Your task to perform on an android device: change the clock display to digital Image 0: 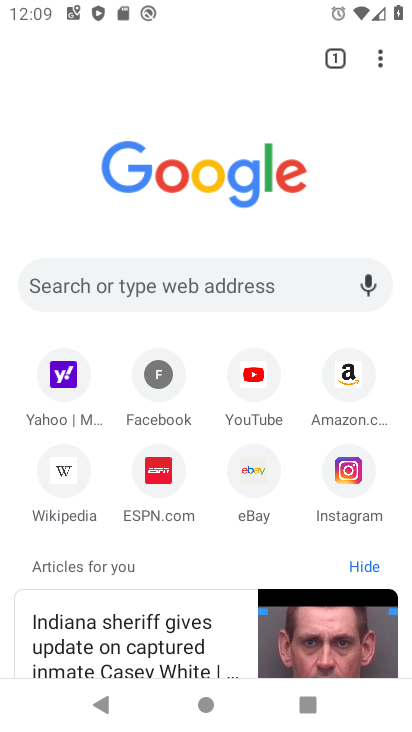
Step 0: drag from (206, 546) to (234, 282)
Your task to perform on an android device: change the clock display to digital Image 1: 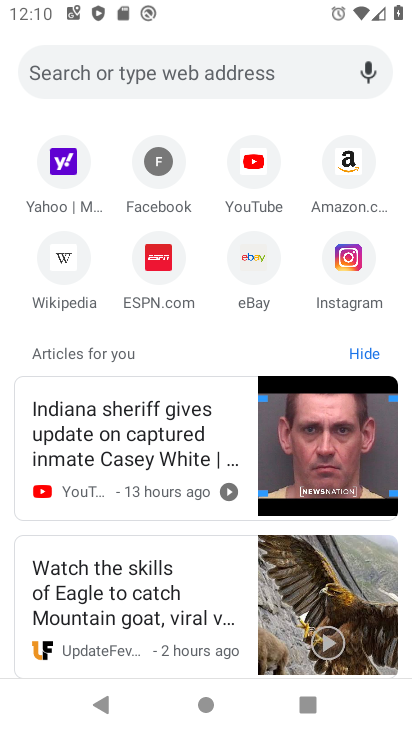
Step 1: drag from (202, 135) to (216, 411)
Your task to perform on an android device: change the clock display to digital Image 2: 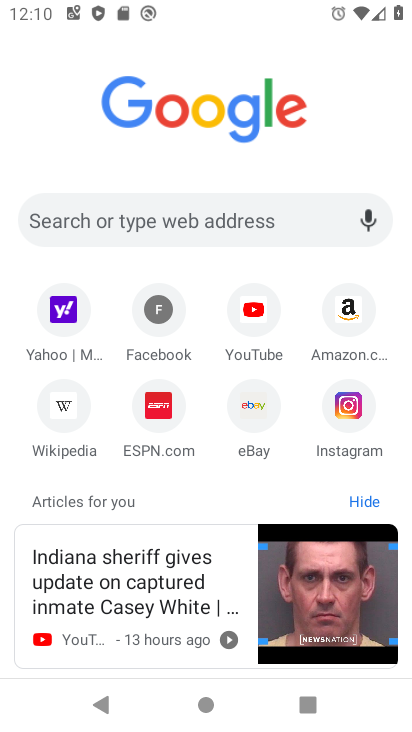
Step 2: drag from (176, 272) to (211, 508)
Your task to perform on an android device: change the clock display to digital Image 3: 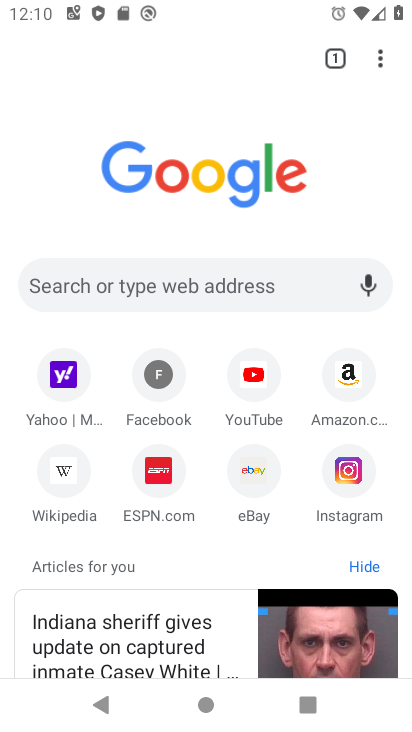
Step 3: drag from (205, 547) to (215, 227)
Your task to perform on an android device: change the clock display to digital Image 4: 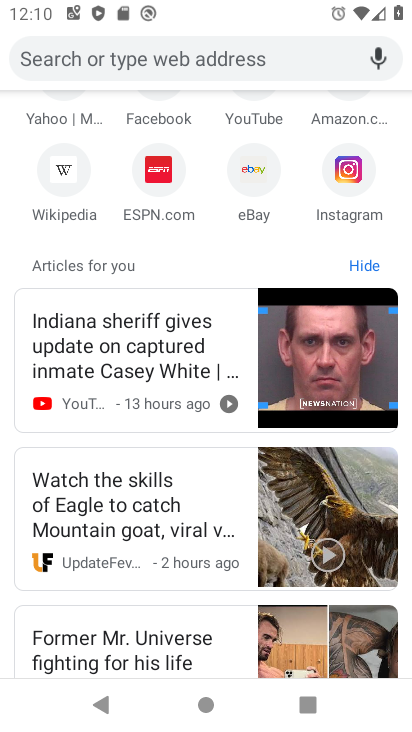
Step 4: drag from (307, 153) to (404, 487)
Your task to perform on an android device: change the clock display to digital Image 5: 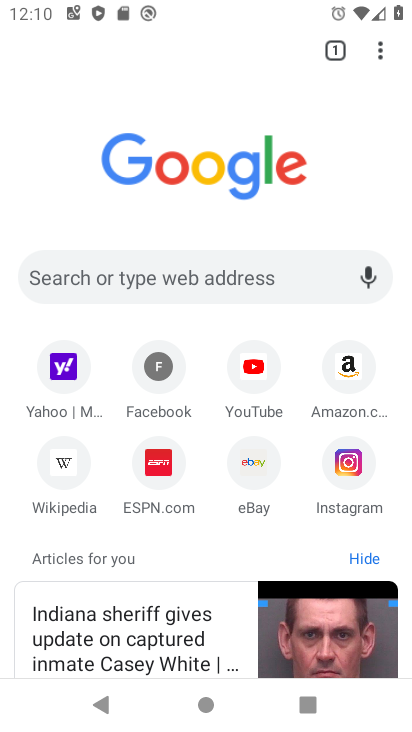
Step 5: press home button
Your task to perform on an android device: change the clock display to digital Image 6: 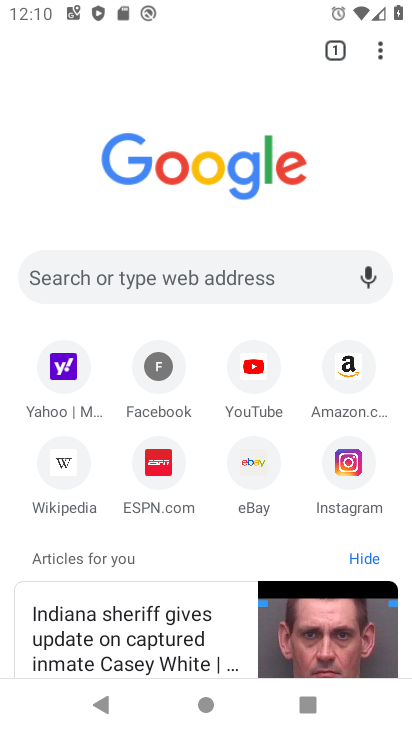
Step 6: click (411, 373)
Your task to perform on an android device: change the clock display to digital Image 7: 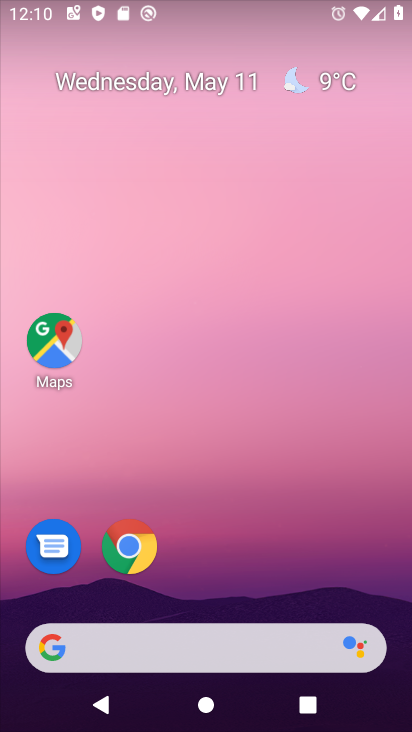
Step 7: drag from (185, 588) to (217, 258)
Your task to perform on an android device: change the clock display to digital Image 8: 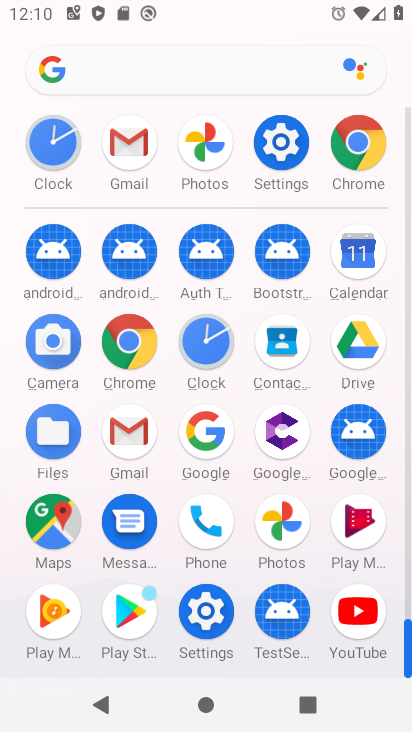
Step 8: click (199, 338)
Your task to perform on an android device: change the clock display to digital Image 9: 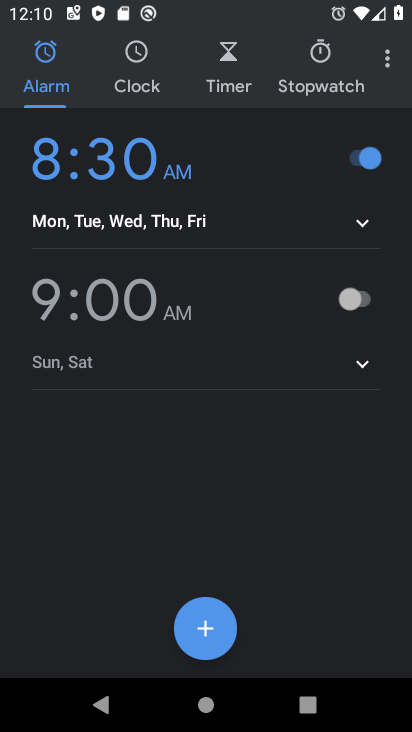
Step 9: click (388, 57)
Your task to perform on an android device: change the clock display to digital Image 10: 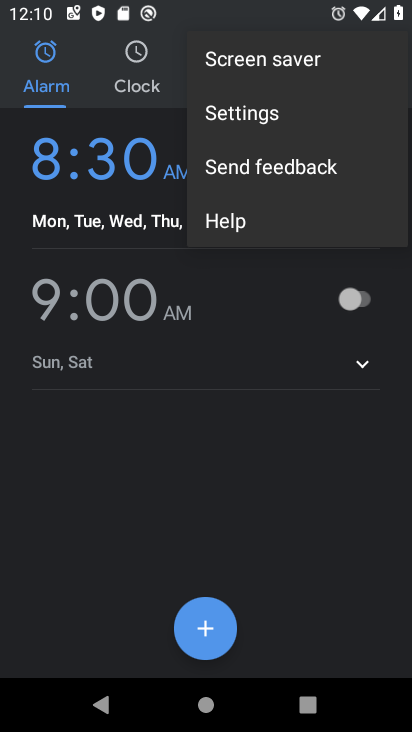
Step 10: click (284, 121)
Your task to perform on an android device: change the clock display to digital Image 11: 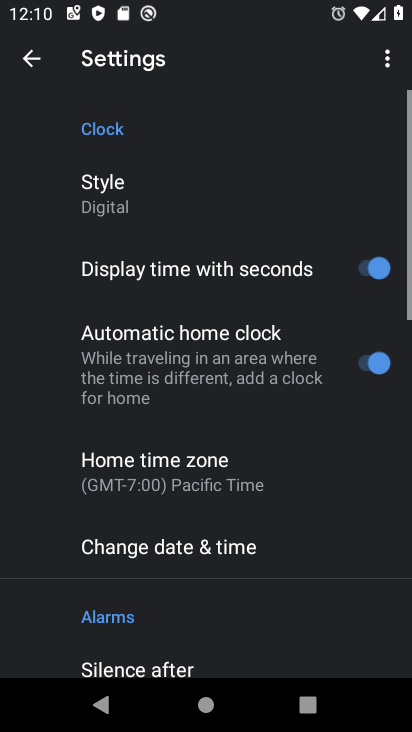
Step 11: click (119, 195)
Your task to perform on an android device: change the clock display to digital Image 12: 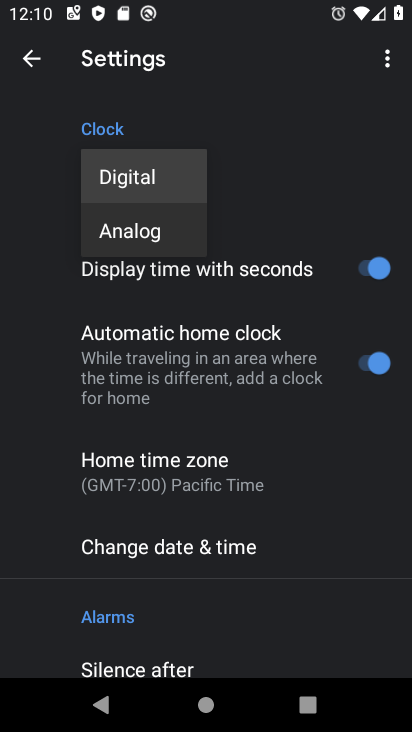
Step 12: click (152, 197)
Your task to perform on an android device: change the clock display to digital Image 13: 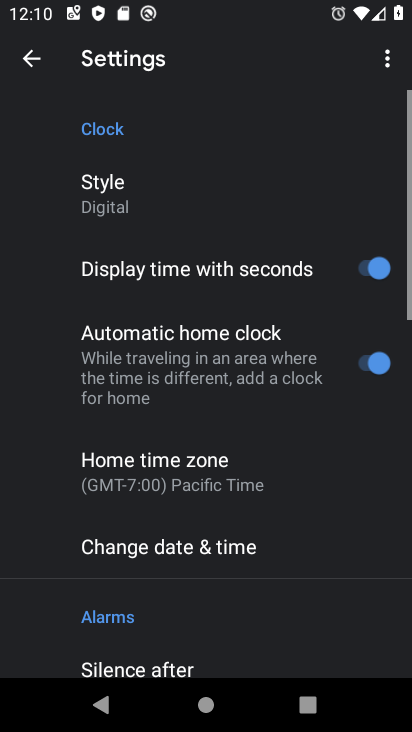
Step 13: task complete